Your task to perform on an android device: Open Google Chrome and click the shortcut for Amazon.com Image 0: 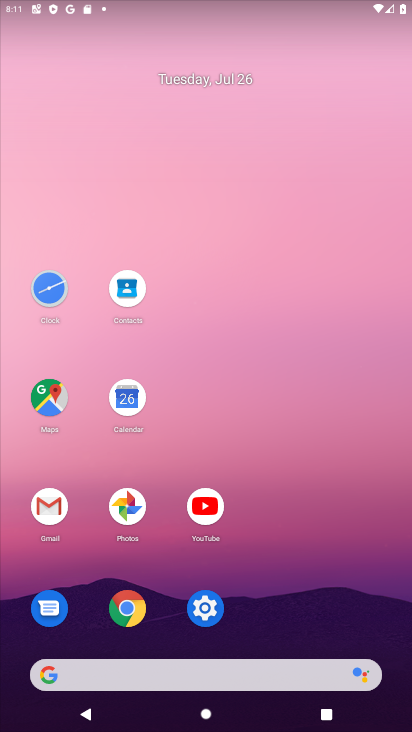
Step 0: click (127, 601)
Your task to perform on an android device: Open Google Chrome and click the shortcut for Amazon.com Image 1: 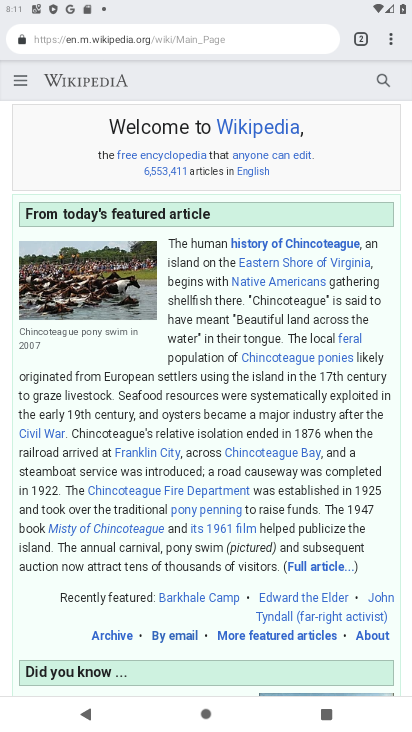
Step 1: click (392, 42)
Your task to perform on an android device: Open Google Chrome and click the shortcut for Amazon.com Image 2: 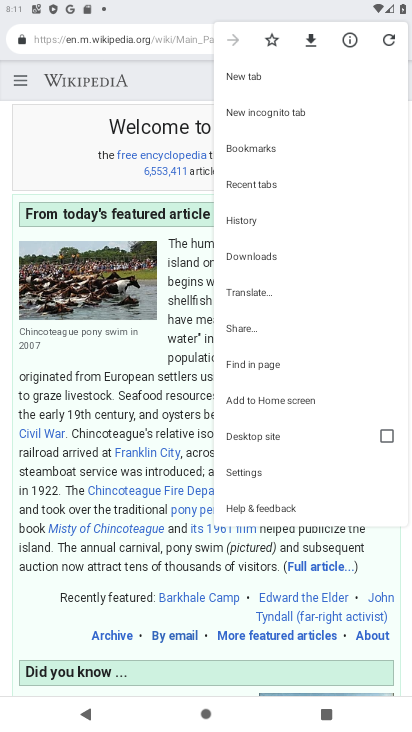
Step 2: click (242, 77)
Your task to perform on an android device: Open Google Chrome and click the shortcut for Amazon.com Image 3: 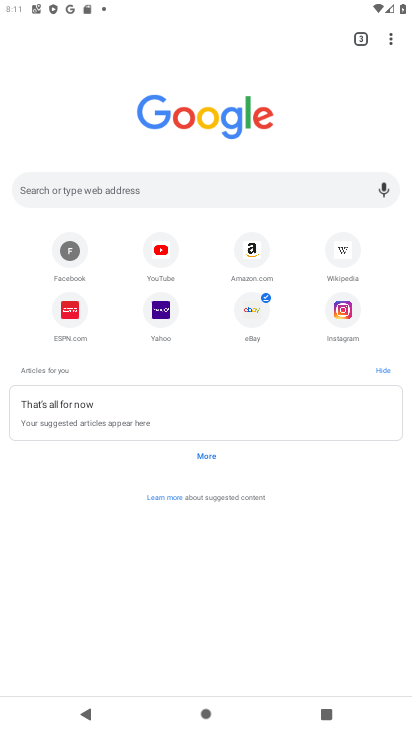
Step 3: click (248, 248)
Your task to perform on an android device: Open Google Chrome and click the shortcut for Amazon.com Image 4: 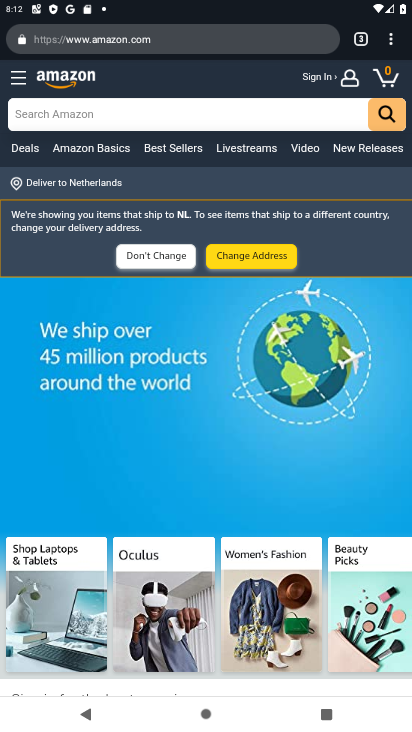
Step 4: task complete